Your task to perform on an android device: Open Google Chrome Image 0: 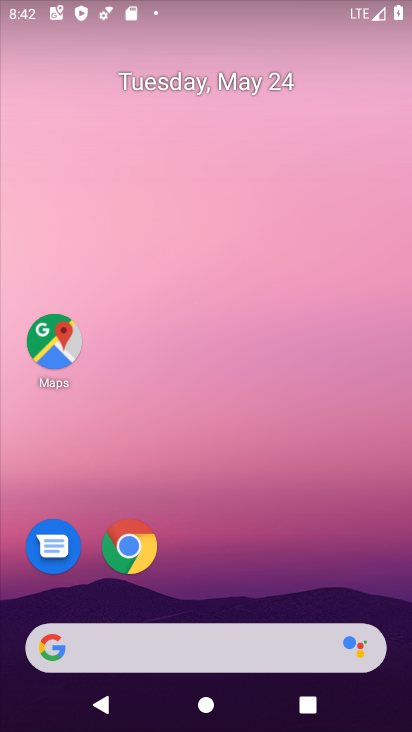
Step 0: click (129, 544)
Your task to perform on an android device: Open Google Chrome Image 1: 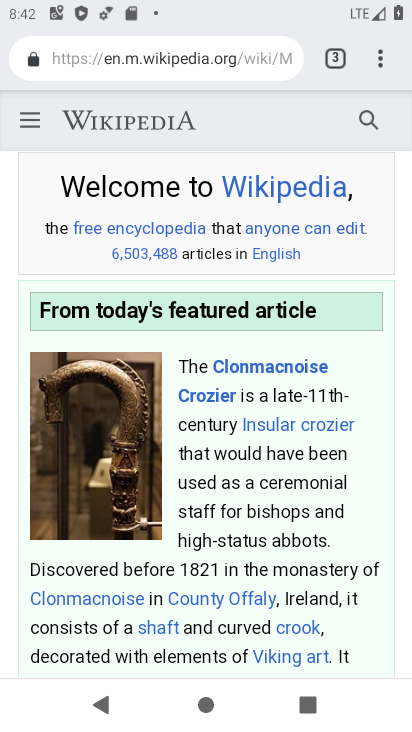
Step 1: click (374, 54)
Your task to perform on an android device: Open Google Chrome Image 2: 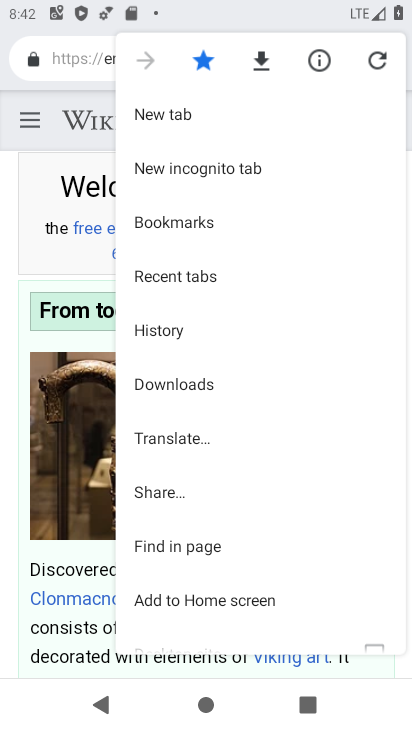
Step 2: click (280, 118)
Your task to perform on an android device: Open Google Chrome Image 3: 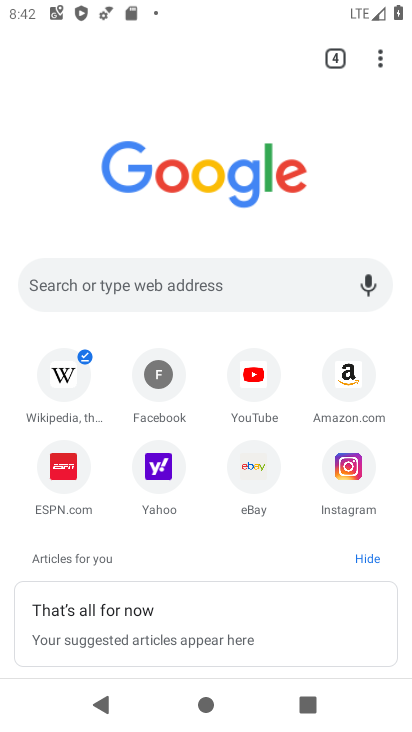
Step 3: task complete